Your task to perform on an android device: turn off priority inbox in the gmail app Image 0: 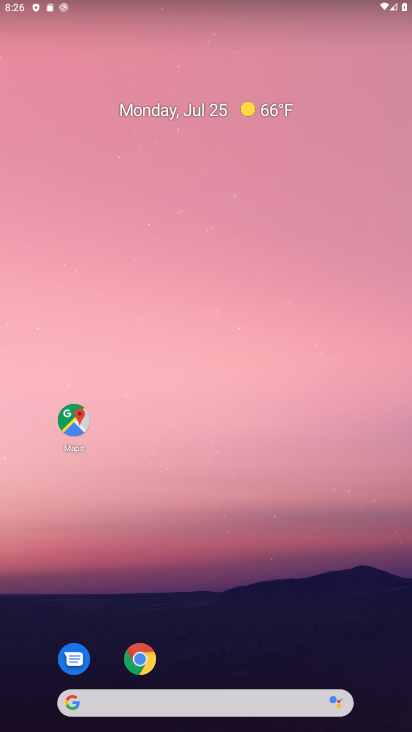
Step 0: drag from (281, 534) to (243, 247)
Your task to perform on an android device: turn off priority inbox in the gmail app Image 1: 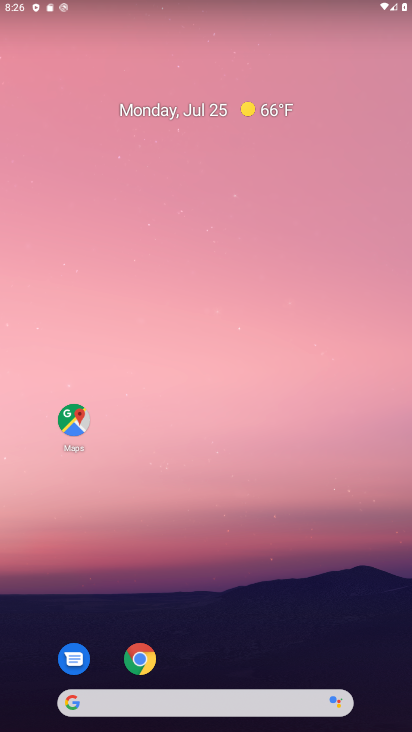
Step 1: drag from (214, 616) to (158, 212)
Your task to perform on an android device: turn off priority inbox in the gmail app Image 2: 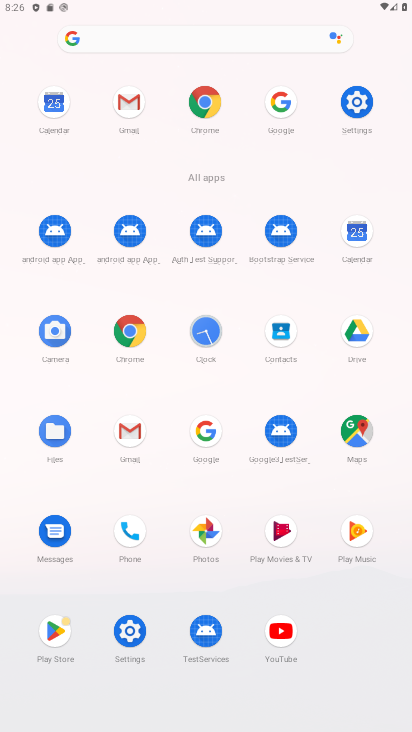
Step 2: click (124, 438)
Your task to perform on an android device: turn off priority inbox in the gmail app Image 3: 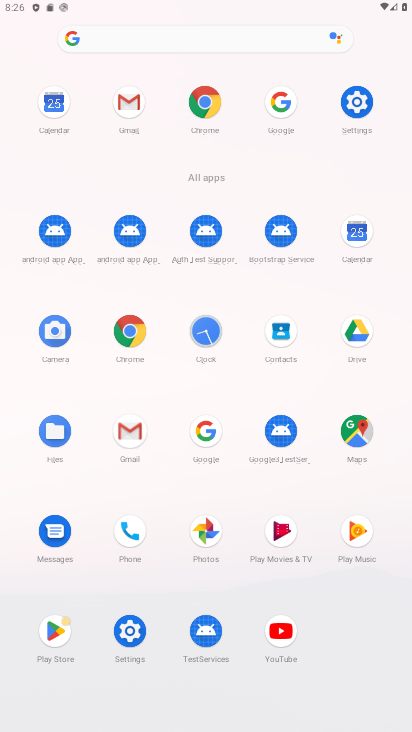
Step 3: click (135, 428)
Your task to perform on an android device: turn off priority inbox in the gmail app Image 4: 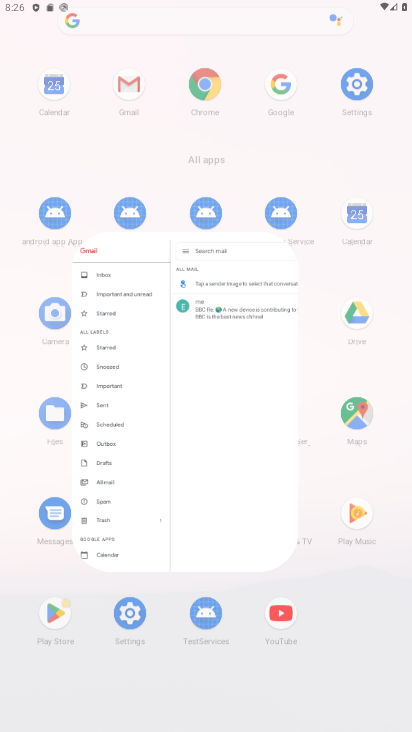
Step 4: click (137, 429)
Your task to perform on an android device: turn off priority inbox in the gmail app Image 5: 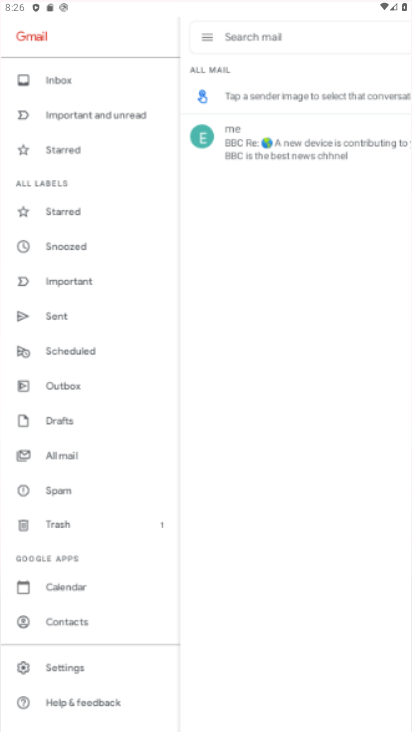
Step 5: click (138, 430)
Your task to perform on an android device: turn off priority inbox in the gmail app Image 6: 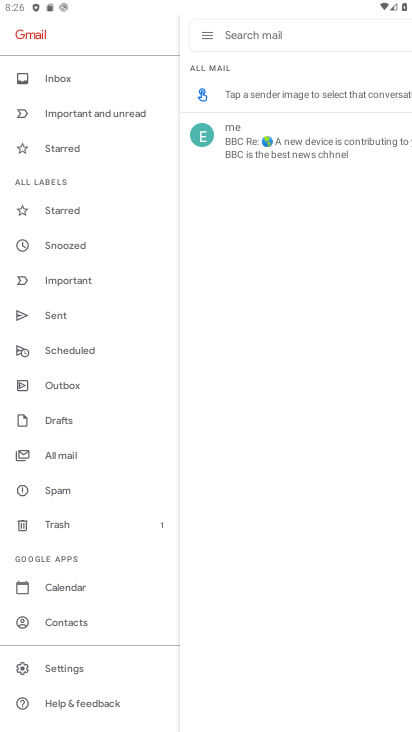
Step 6: click (134, 433)
Your task to perform on an android device: turn off priority inbox in the gmail app Image 7: 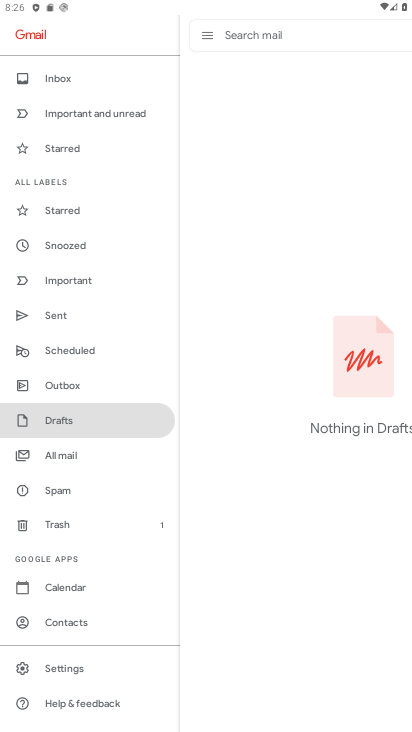
Step 7: click (69, 659)
Your task to perform on an android device: turn off priority inbox in the gmail app Image 8: 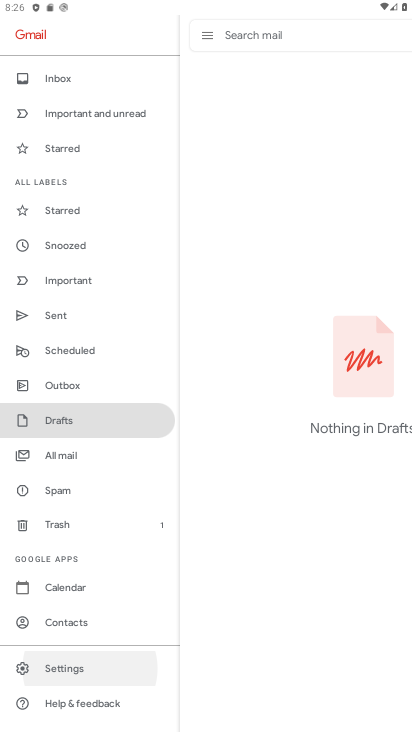
Step 8: click (68, 661)
Your task to perform on an android device: turn off priority inbox in the gmail app Image 9: 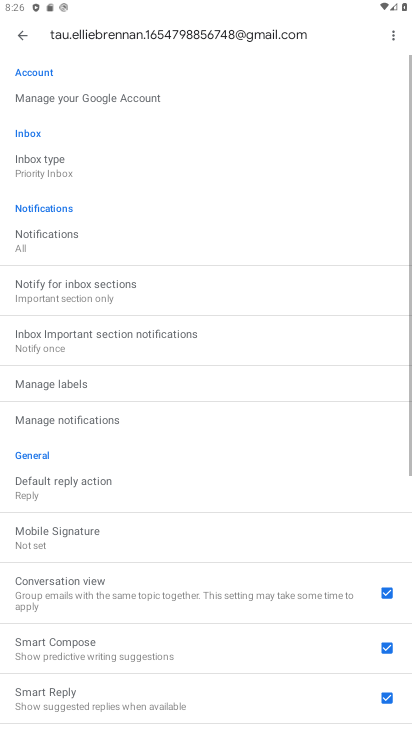
Step 9: click (46, 165)
Your task to perform on an android device: turn off priority inbox in the gmail app Image 10: 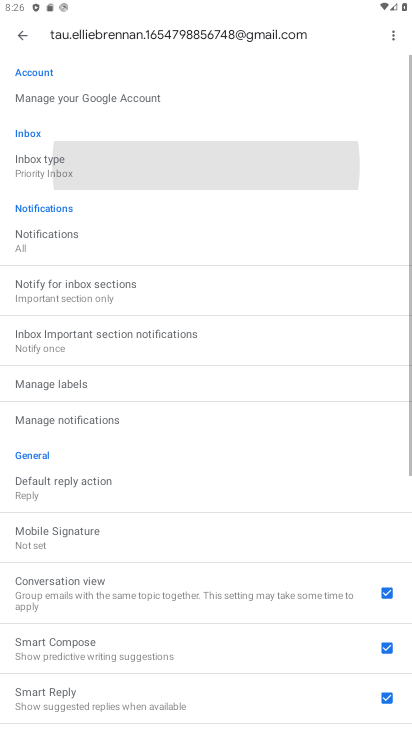
Step 10: click (46, 165)
Your task to perform on an android device: turn off priority inbox in the gmail app Image 11: 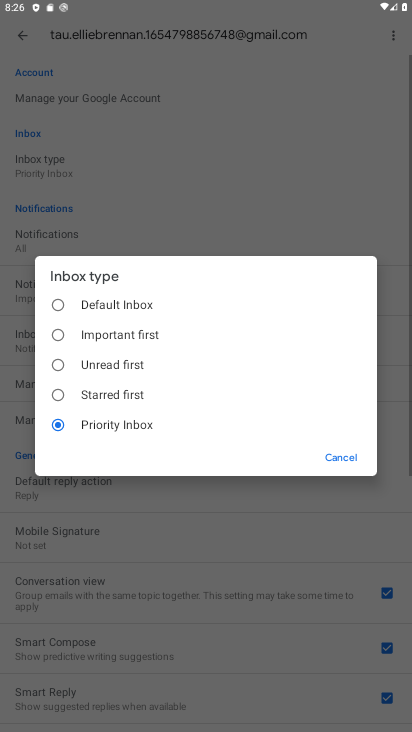
Step 11: click (49, 305)
Your task to perform on an android device: turn off priority inbox in the gmail app Image 12: 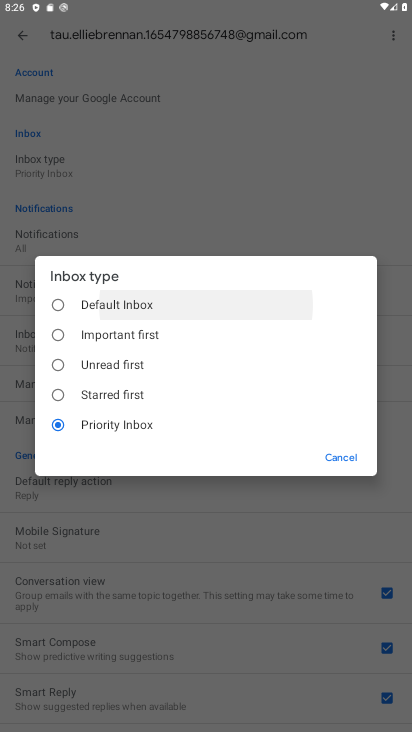
Step 12: click (65, 301)
Your task to perform on an android device: turn off priority inbox in the gmail app Image 13: 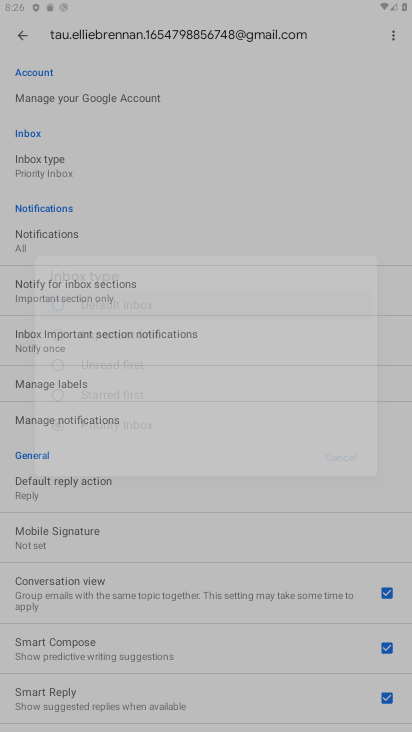
Step 13: click (69, 298)
Your task to perform on an android device: turn off priority inbox in the gmail app Image 14: 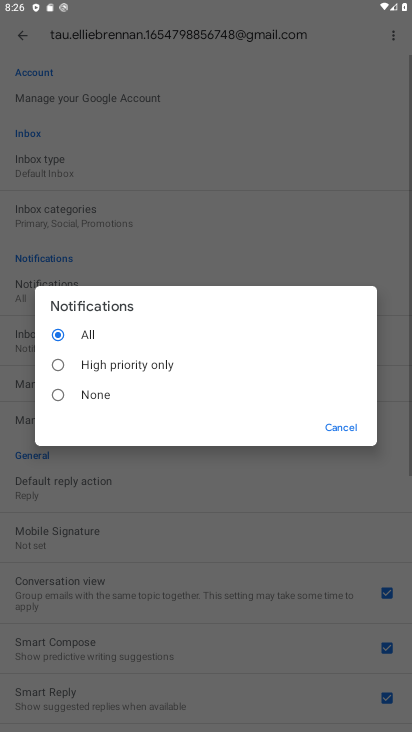
Step 14: click (357, 428)
Your task to perform on an android device: turn off priority inbox in the gmail app Image 15: 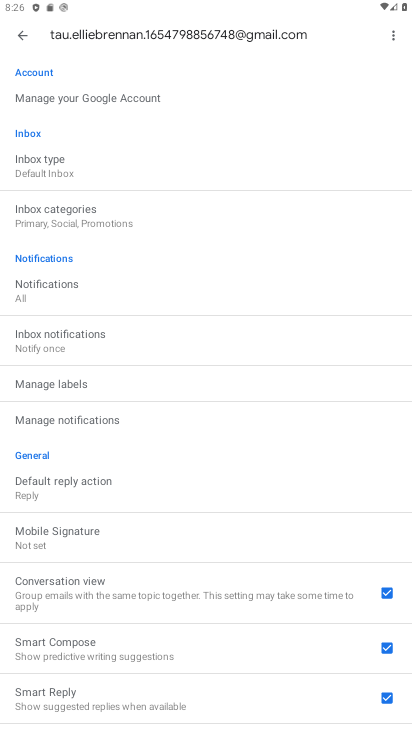
Step 15: task complete